Your task to perform on an android device: Search for logitech g pro on costco, select the first entry, add it to the cart, then select checkout. Image 0: 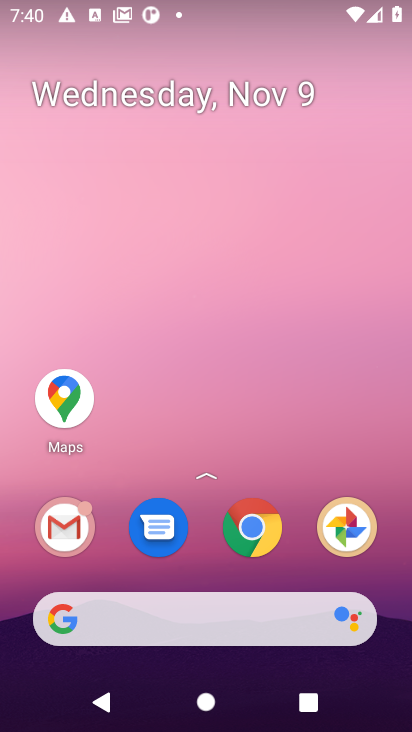
Step 0: click (253, 534)
Your task to perform on an android device: Search for logitech g pro on costco, select the first entry, add it to the cart, then select checkout. Image 1: 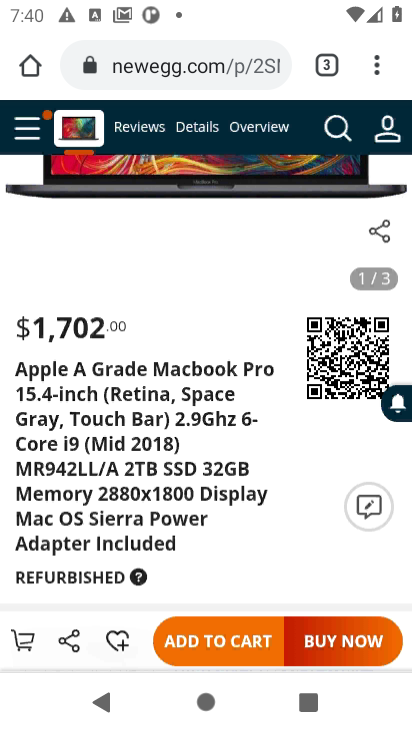
Step 1: click (188, 62)
Your task to perform on an android device: Search for logitech g pro on costco, select the first entry, add it to the cart, then select checkout. Image 2: 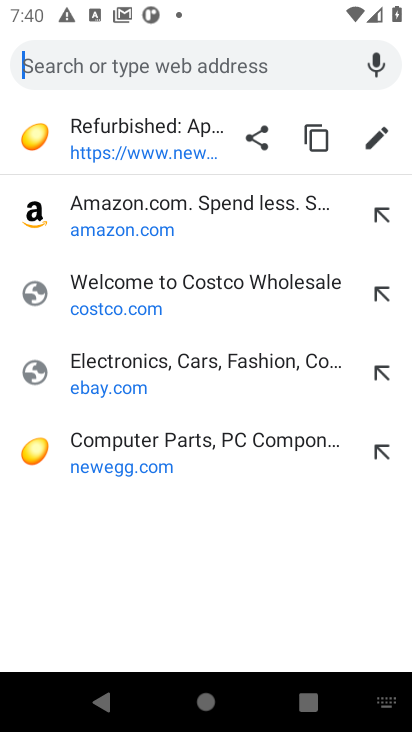
Step 2: click (140, 296)
Your task to perform on an android device: Search for logitech g pro on costco, select the first entry, add it to the cart, then select checkout. Image 3: 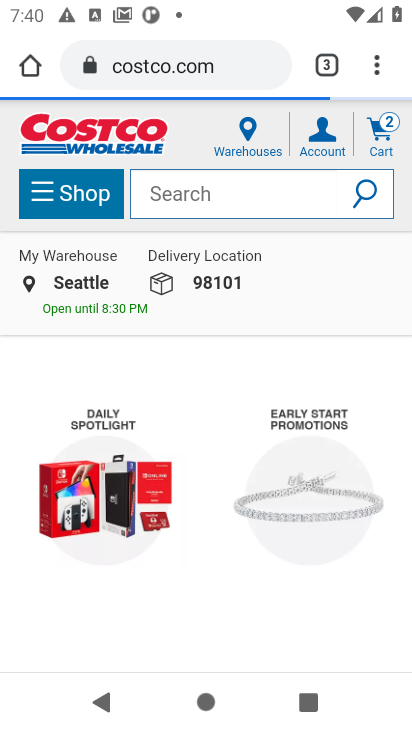
Step 3: click (159, 211)
Your task to perform on an android device: Search for logitech g pro on costco, select the first entry, add it to the cart, then select checkout. Image 4: 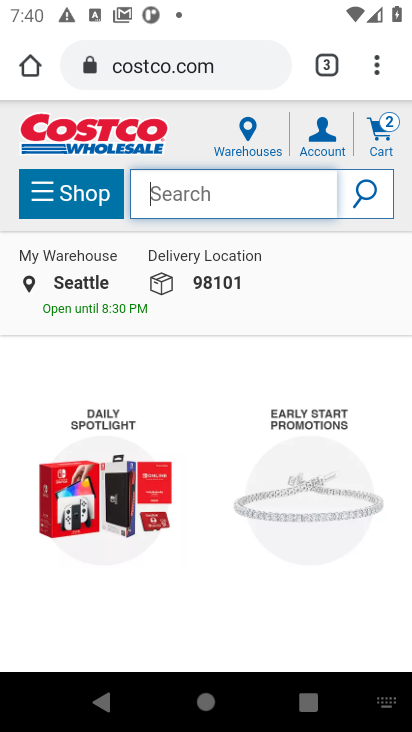
Step 4: type "logitech g pro "
Your task to perform on an android device: Search for logitech g pro on costco, select the first entry, add it to the cart, then select checkout. Image 5: 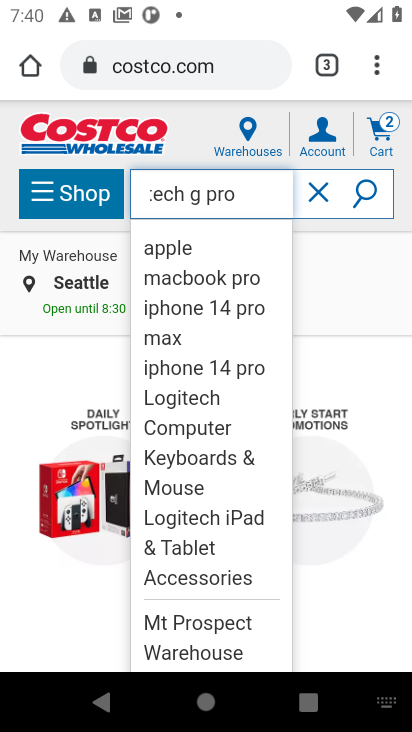
Step 5: click (356, 199)
Your task to perform on an android device: Search for logitech g pro on costco, select the first entry, add it to the cart, then select checkout. Image 6: 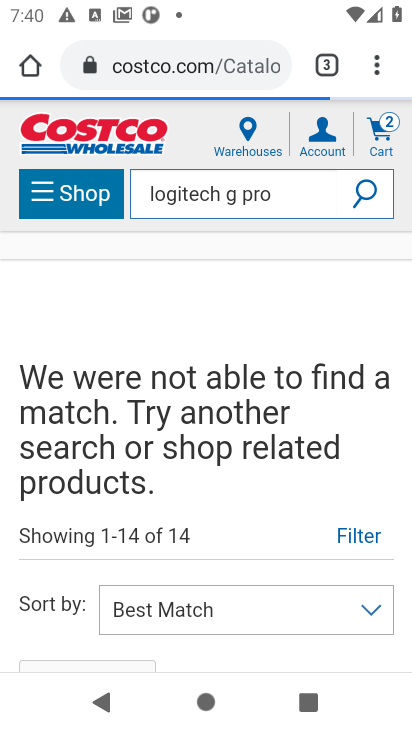
Step 6: task complete